Your task to perform on an android device: Open Google Image 0: 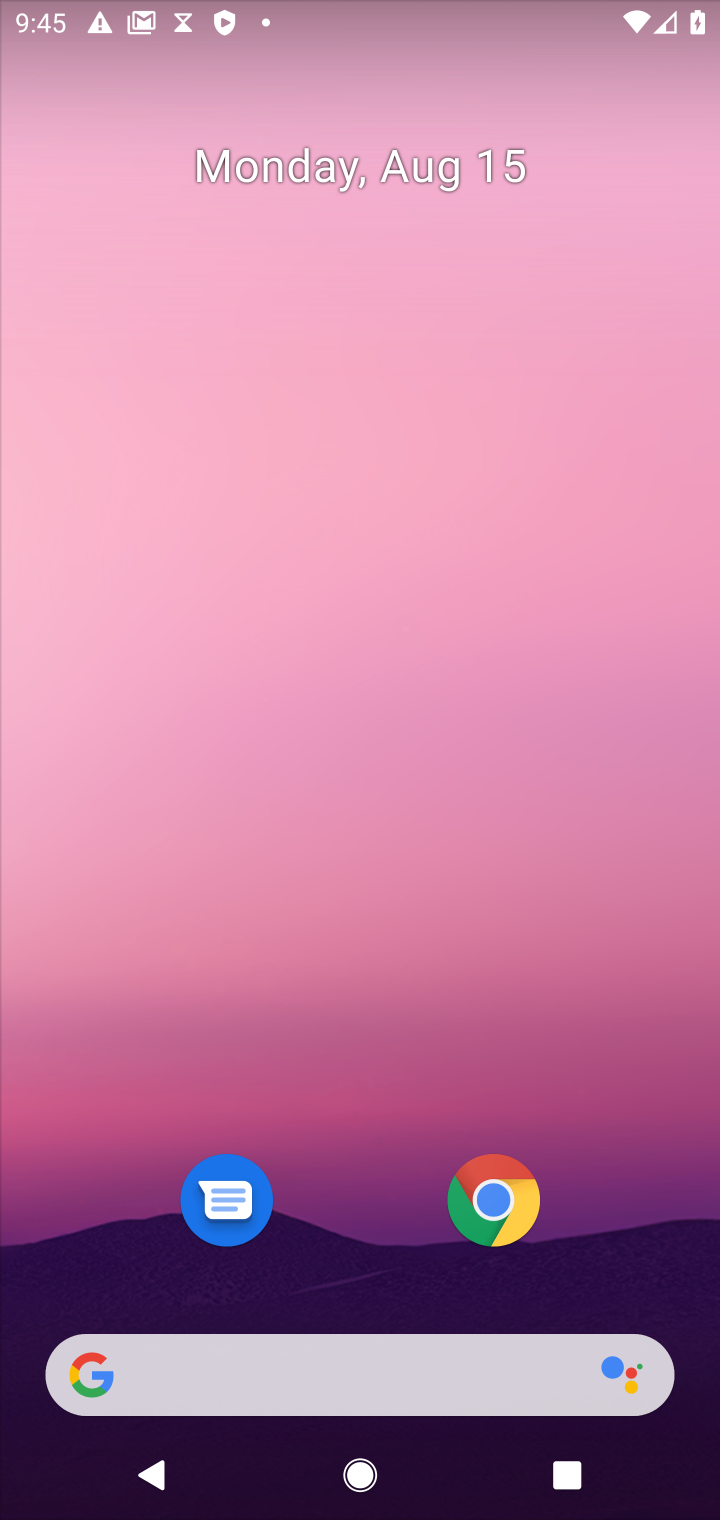
Step 0: drag from (345, 1153) to (312, 283)
Your task to perform on an android device: Open Google Image 1: 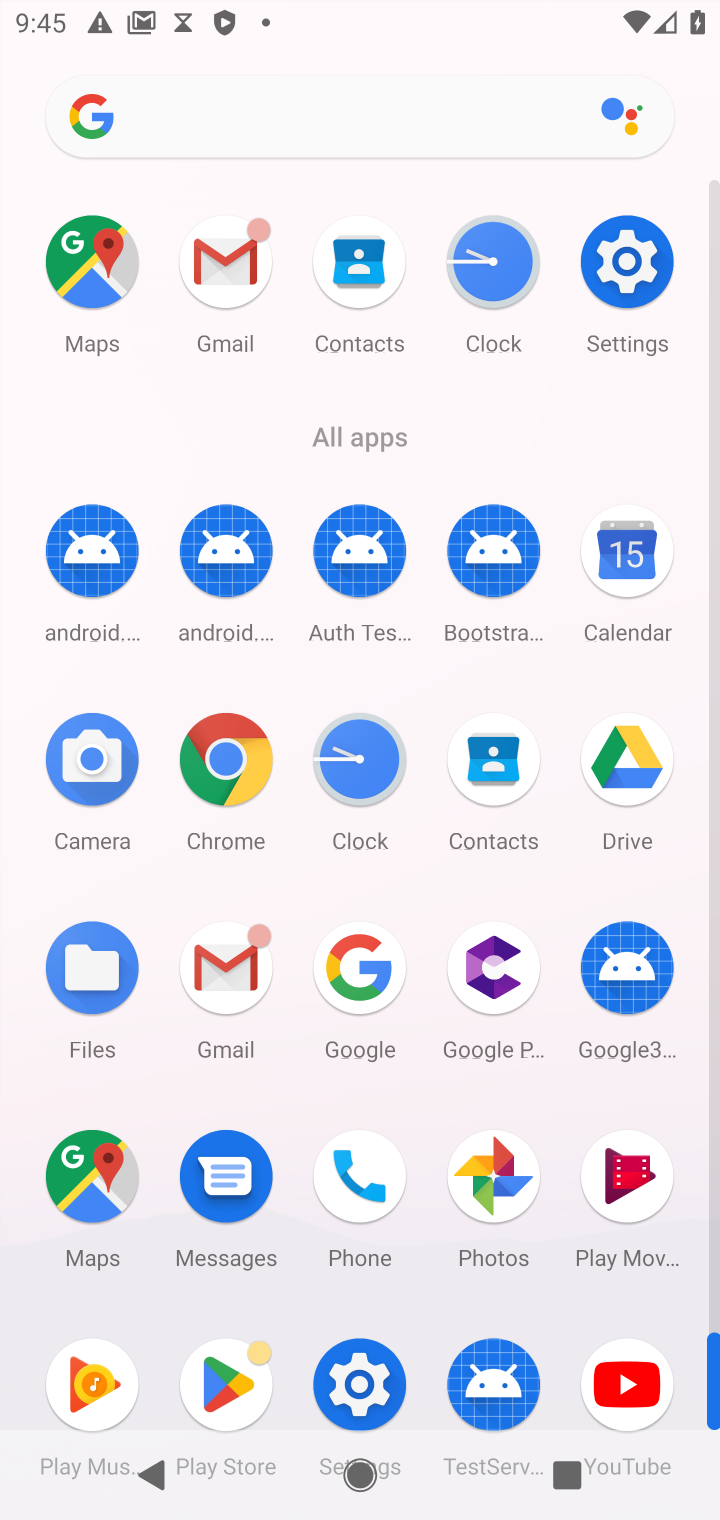
Step 1: click (347, 947)
Your task to perform on an android device: Open Google Image 2: 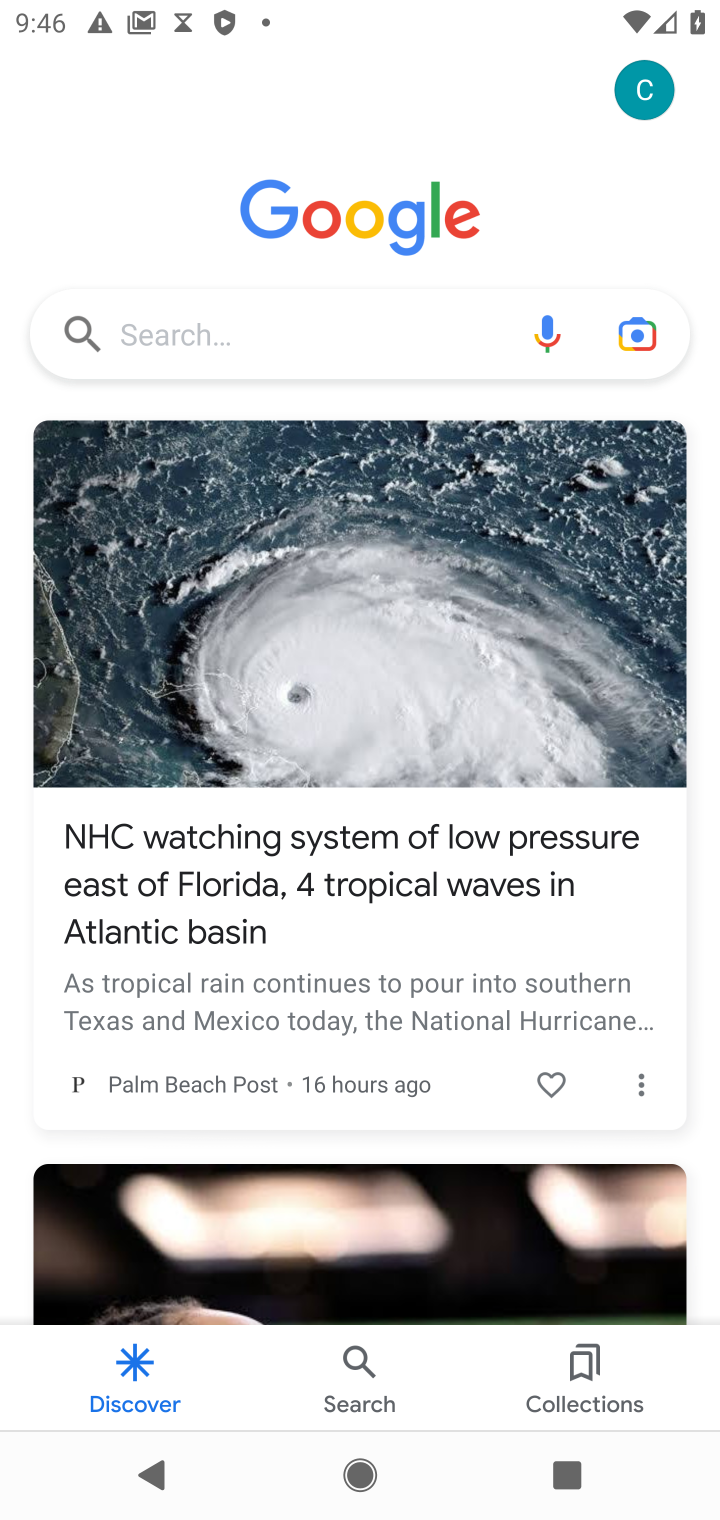
Step 2: task complete